Your task to perform on an android device: turn off picture-in-picture Image 0: 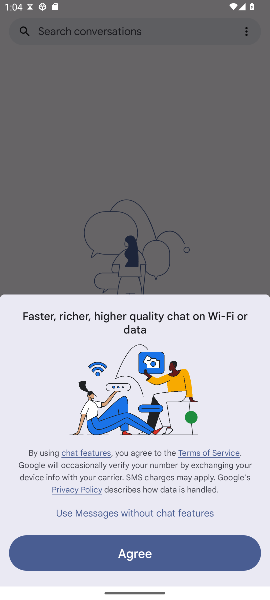
Step 0: click (193, 553)
Your task to perform on an android device: turn off picture-in-picture Image 1: 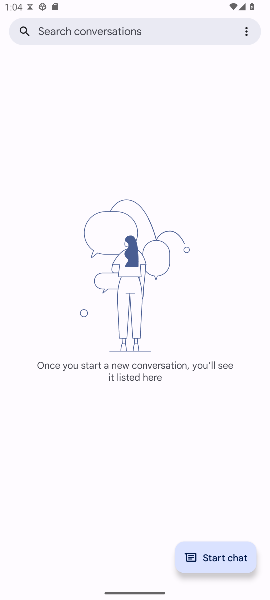
Step 1: press home button
Your task to perform on an android device: turn off picture-in-picture Image 2: 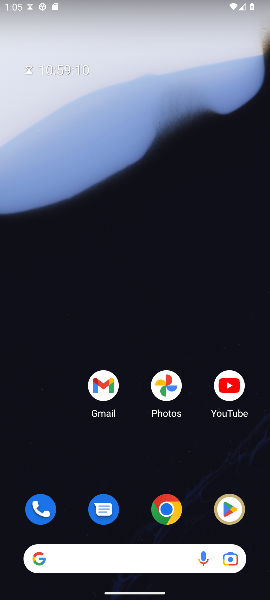
Step 2: click (164, 505)
Your task to perform on an android device: turn off picture-in-picture Image 3: 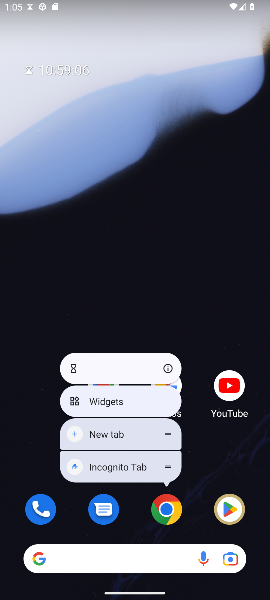
Step 3: click (165, 373)
Your task to perform on an android device: turn off picture-in-picture Image 4: 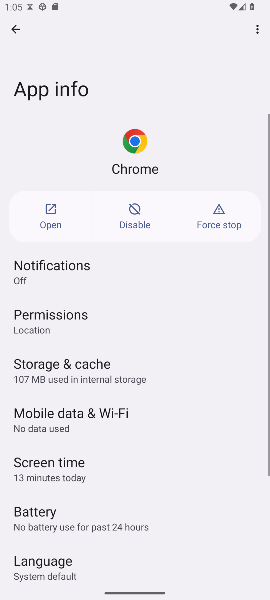
Step 4: drag from (211, 531) to (219, 74)
Your task to perform on an android device: turn off picture-in-picture Image 5: 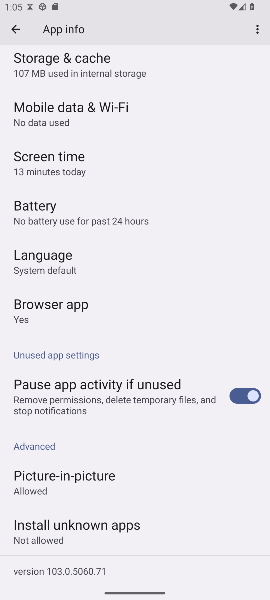
Step 5: click (68, 486)
Your task to perform on an android device: turn off picture-in-picture Image 6: 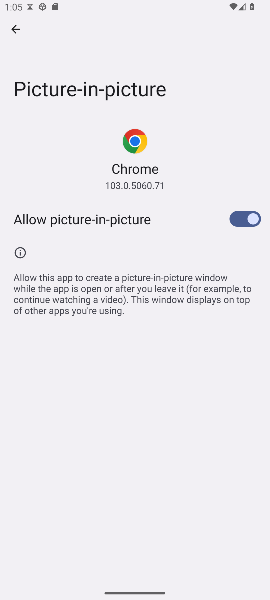
Step 6: click (244, 225)
Your task to perform on an android device: turn off picture-in-picture Image 7: 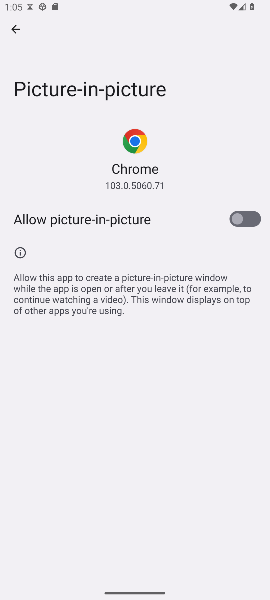
Step 7: task complete